Your task to perform on an android device: empty trash in the gmail app Image 0: 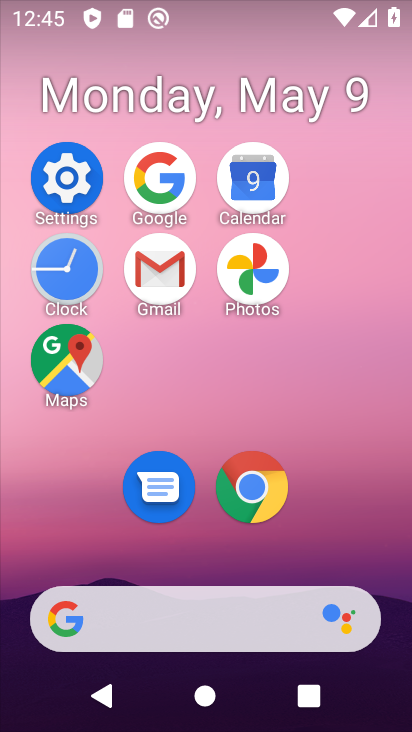
Step 0: click (166, 281)
Your task to perform on an android device: empty trash in the gmail app Image 1: 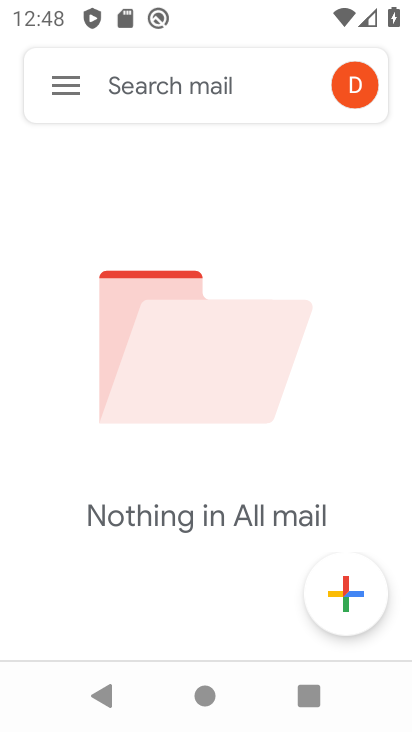
Step 1: click (81, 79)
Your task to perform on an android device: empty trash in the gmail app Image 2: 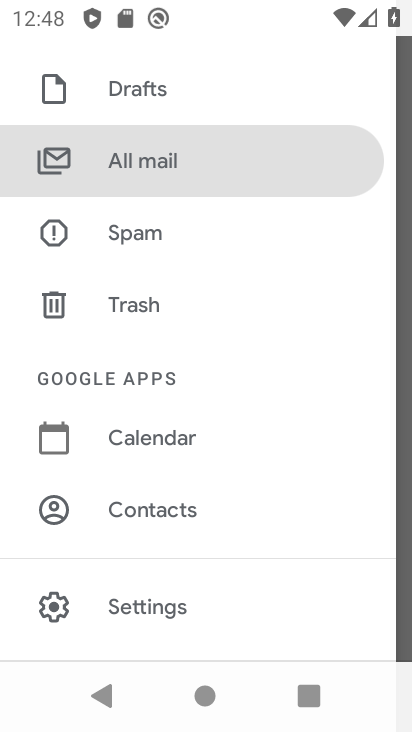
Step 2: click (180, 300)
Your task to perform on an android device: empty trash in the gmail app Image 3: 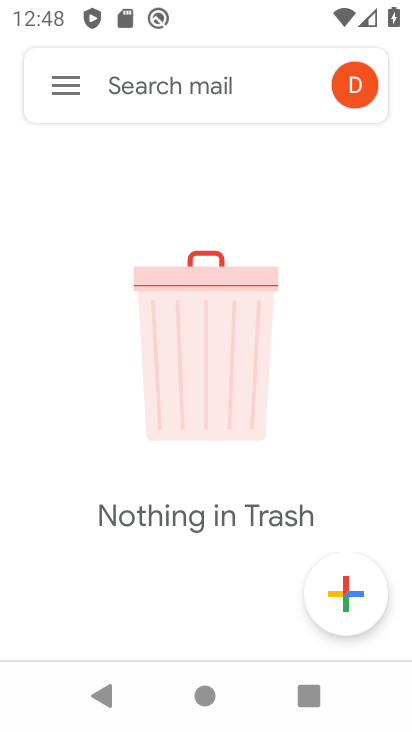
Step 3: task complete